Your task to perform on an android device: refresh tabs in the chrome app Image 0: 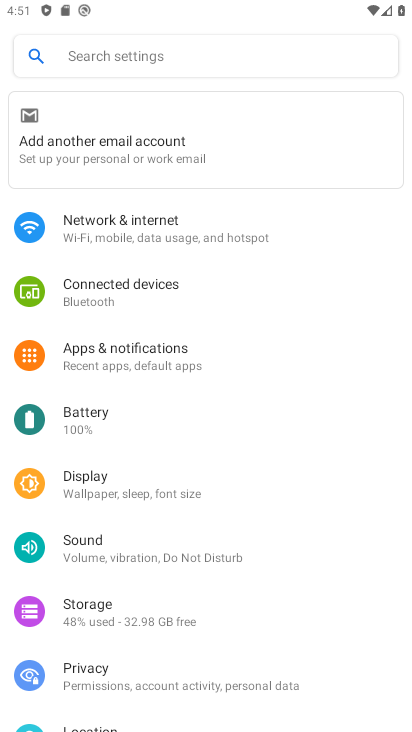
Step 0: press home button
Your task to perform on an android device: refresh tabs in the chrome app Image 1: 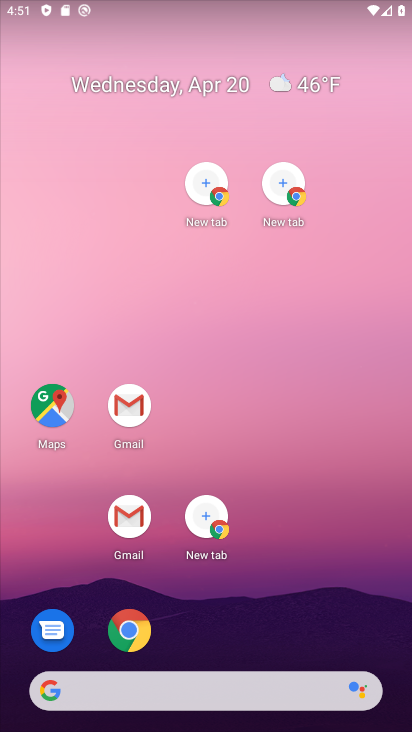
Step 1: drag from (222, 484) to (142, 45)
Your task to perform on an android device: refresh tabs in the chrome app Image 2: 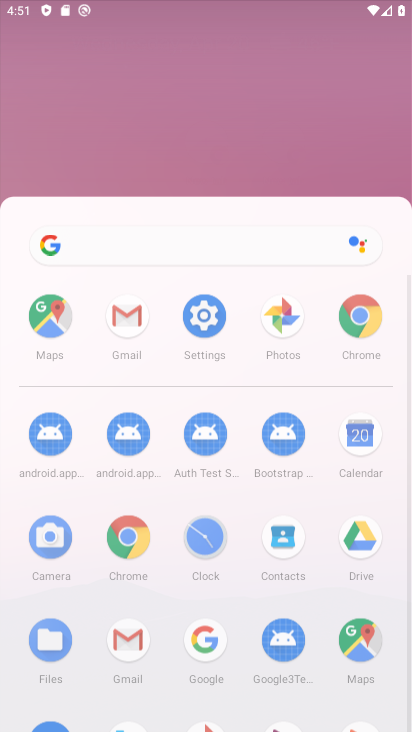
Step 2: drag from (128, 275) to (106, 23)
Your task to perform on an android device: refresh tabs in the chrome app Image 3: 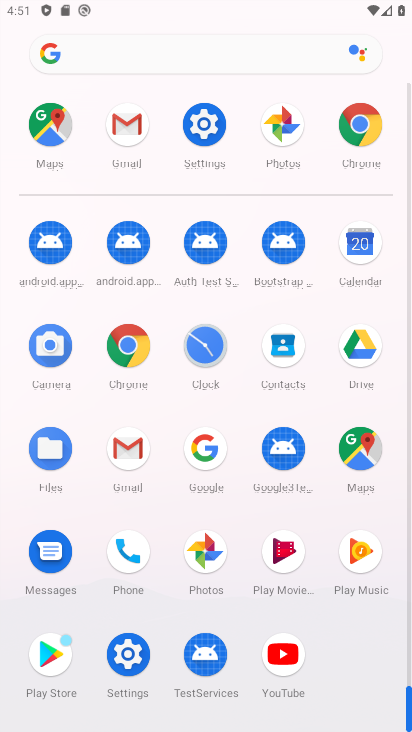
Step 3: click (341, 114)
Your task to perform on an android device: refresh tabs in the chrome app Image 4: 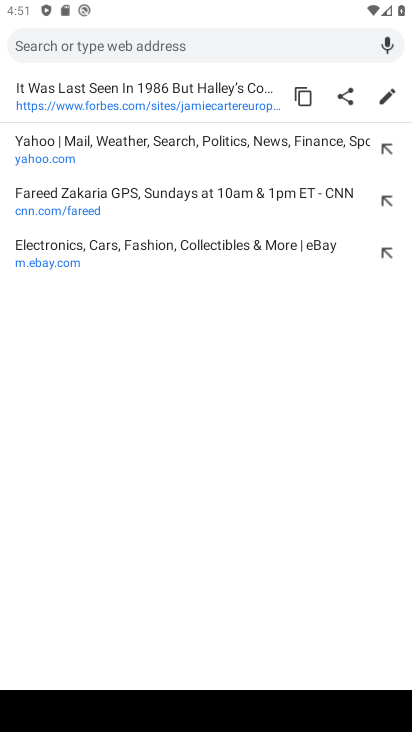
Step 4: press back button
Your task to perform on an android device: refresh tabs in the chrome app Image 5: 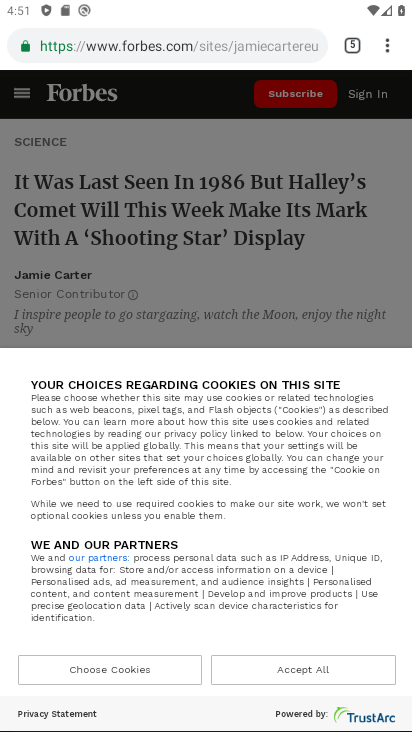
Step 5: click (383, 47)
Your task to perform on an android device: refresh tabs in the chrome app Image 6: 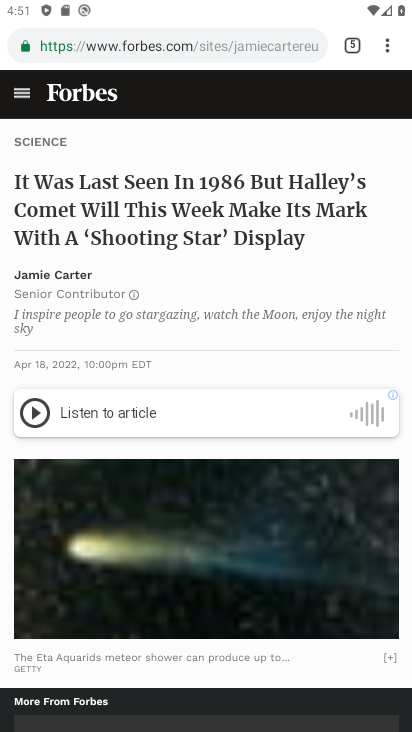
Step 6: task complete